Your task to perform on an android device: Do I have any events tomorrow? Image 0: 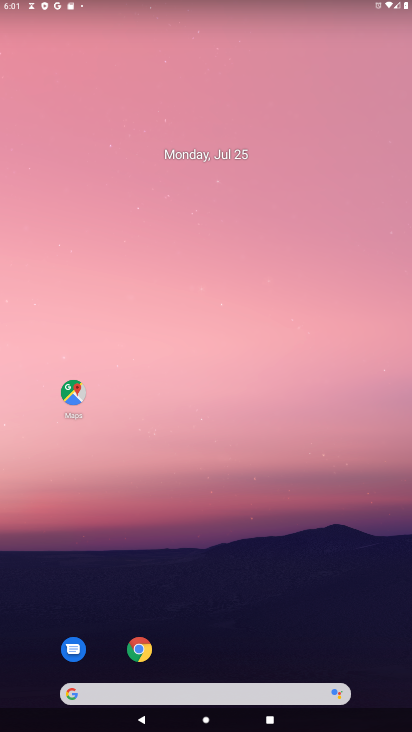
Step 0: drag from (200, 704) to (308, 0)
Your task to perform on an android device: Do I have any events tomorrow? Image 1: 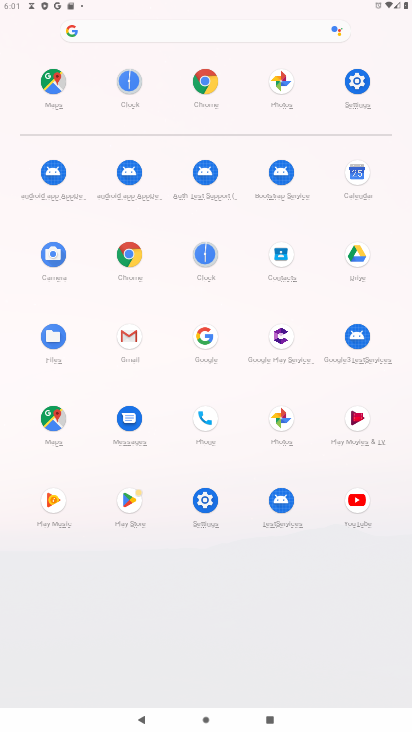
Step 1: click (363, 168)
Your task to perform on an android device: Do I have any events tomorrow? Image 2: 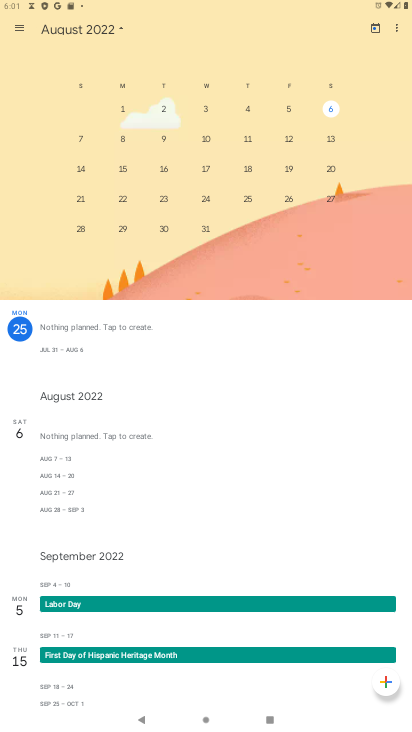
Step 2: click (124, 134)
Your task to perform on an android device: Do I have any events tomorrow? Image 3: 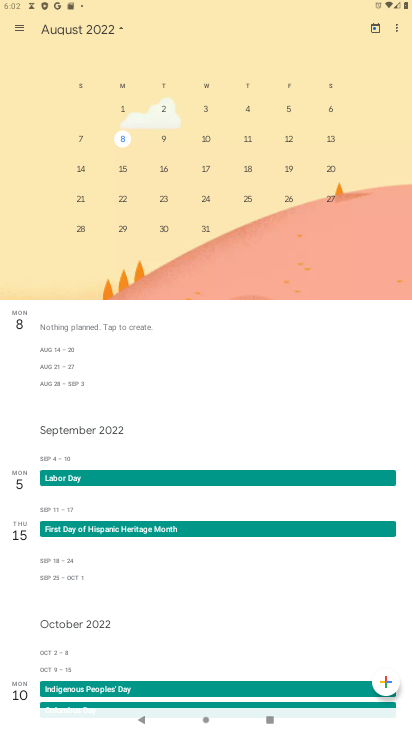
Step 3: task complete